Your task to perform on an android device: all mails in gmail Image 0: 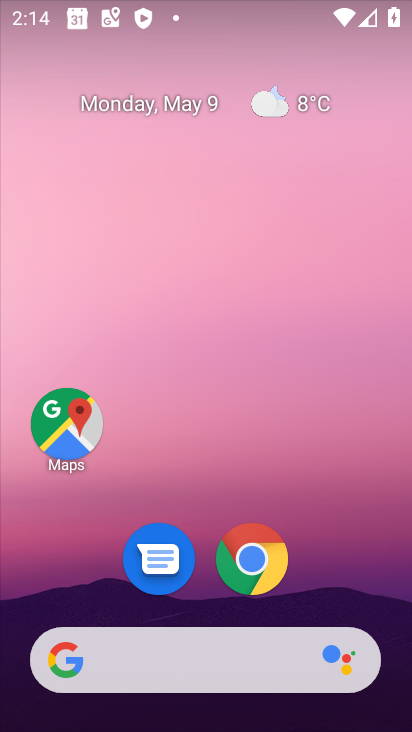
Step 0: drag from (307, 467) to (199, 72)
Your task to perform on an android device: all mails in gmail Image 1: 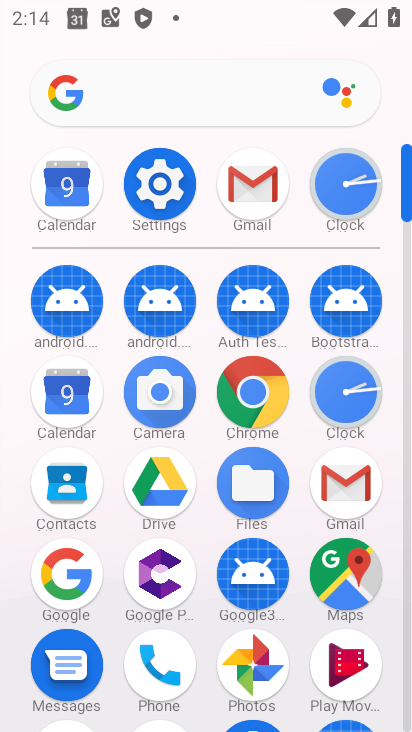
Step 1: click (257, 176)
Your task to perform on an android device: all mails in gmail Image 2: 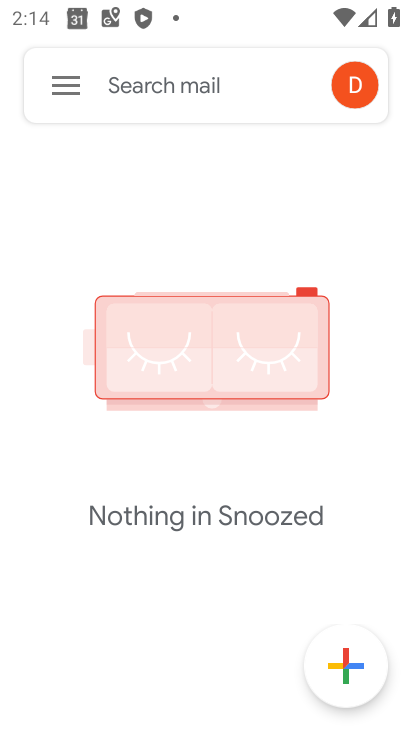
Step 2: click (62, 100)
Your task to perform on an android device: all mails in gmail Image 3: 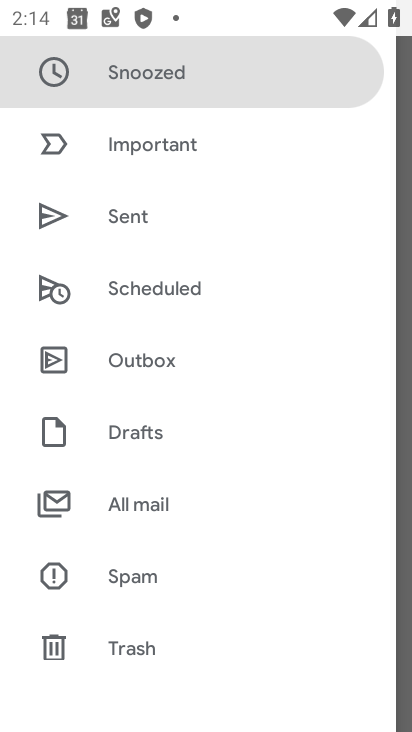
Step 3: click (131, 500)
Your task to perform on an android device: all mails in gmail Image 4: 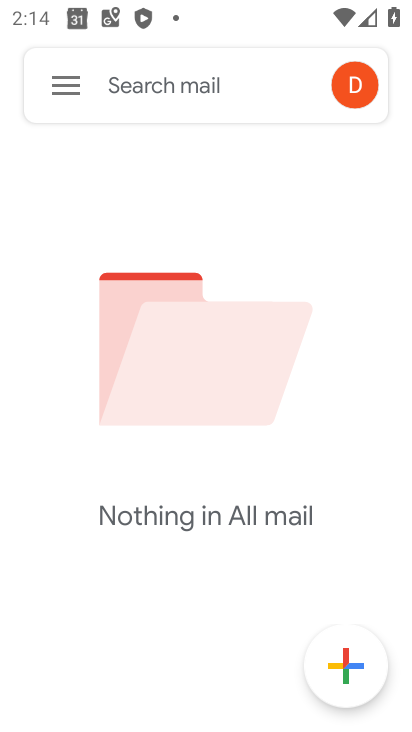
Step 4: task complete